Your task to perform on an android device: Open the calendar app, open the side menu, and click the "Day" option Image 0: 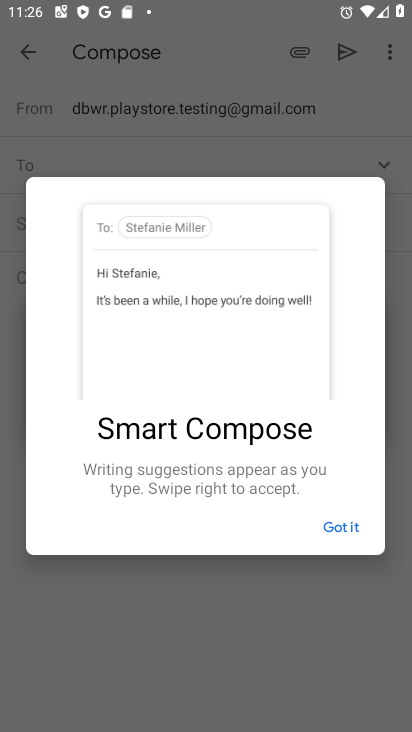
Step 0: press home button
Your task to perform on an android device: Open the calendar app, open the side menu, and click the "Day" option Image 1: 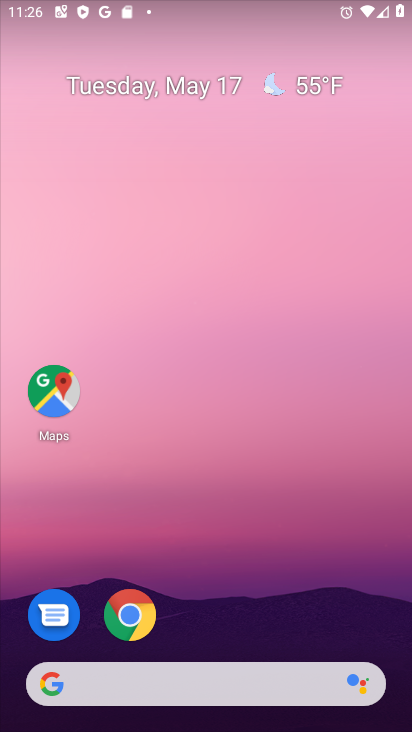
Step 1: drag from (263, 459) to (296, 63)
Your task to perform on an android device: Open the calendar app, open the side menu, and click the "Day" option Image 2: 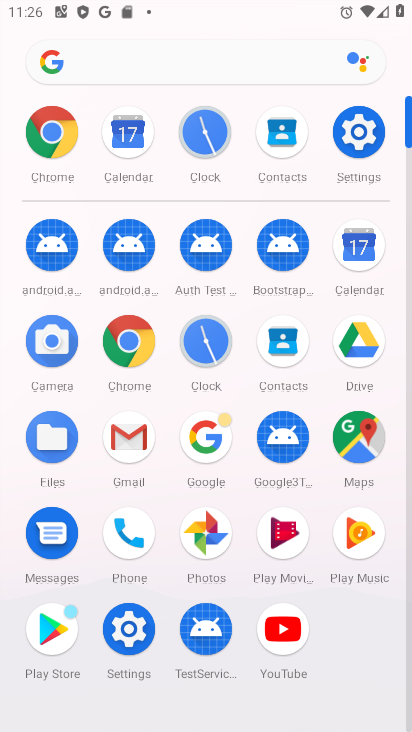
Step 2: click (366, 251)
Your task to perform on an android device: Open the calendar app, open the side menu, and click the "Day" option Image 3: 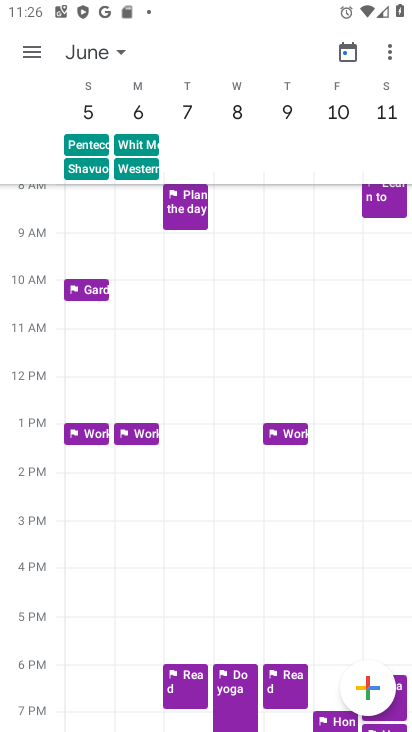
Step 3: click (40, 38)
Your task to perform on an android device: Open the calendar app, open the side menu, and click the "Day" option Image 4: 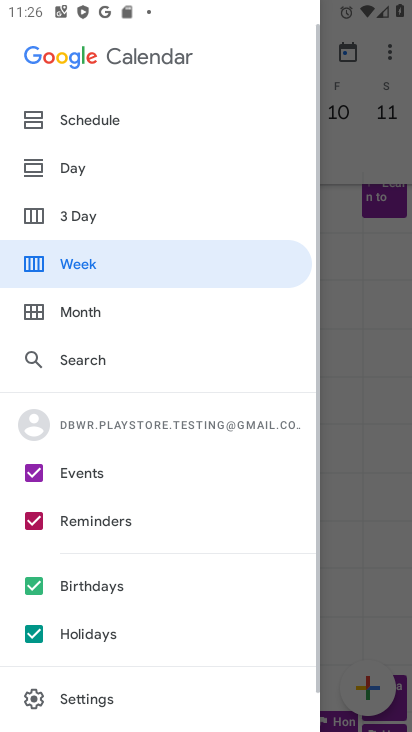
Step 4: click (79, 162)
Your task to perform on an android device: Open the calendar app, open the side menu, and click the "Day" option Image 5: 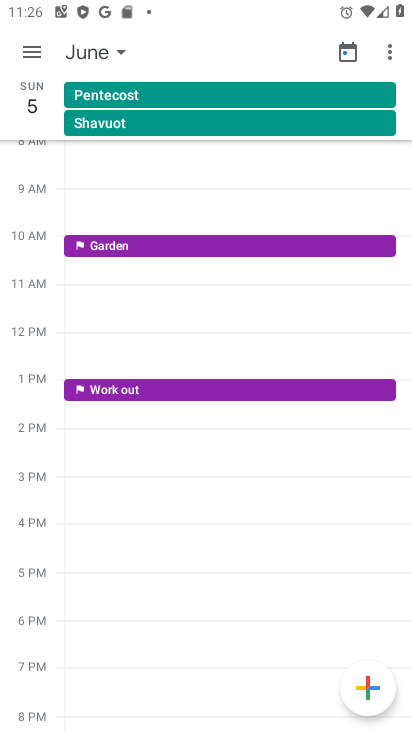
Step 5: task complete